Your task to perform on an android device: delete location history Image 0: 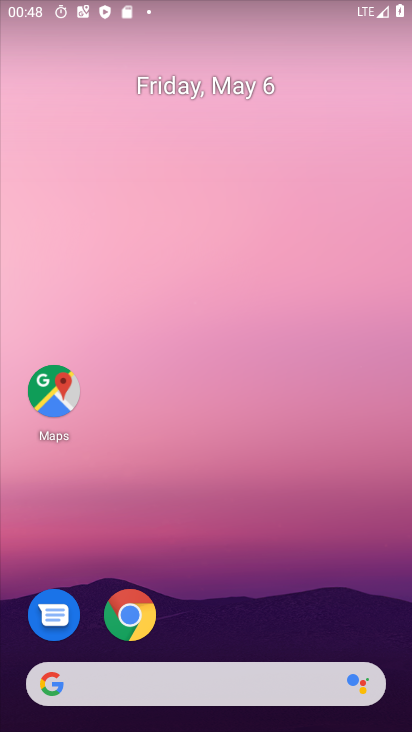
Step 0: drag from (240, 575) to (266, 14)
Your task to perform on an android device: delete location history Image 1: 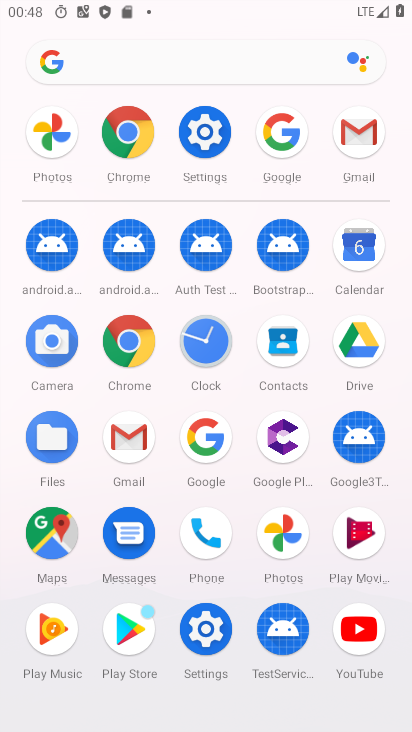
Step 1: click (206, 129)
Your task to perform on an android device: delete location history Image 2: 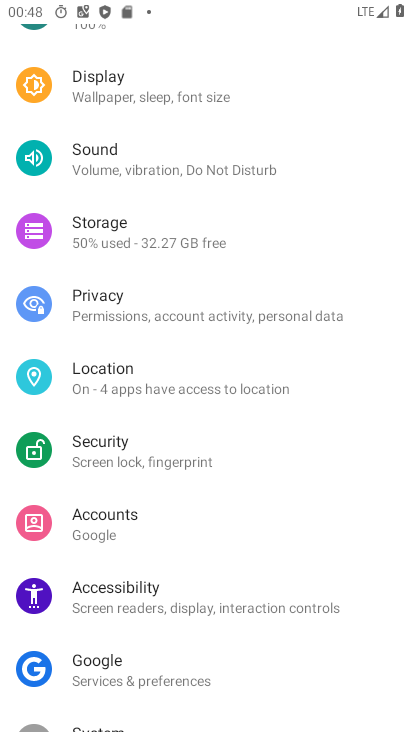
Step 2: click (139, 383)
Your task to perform on an android device: delete location history Image 3: 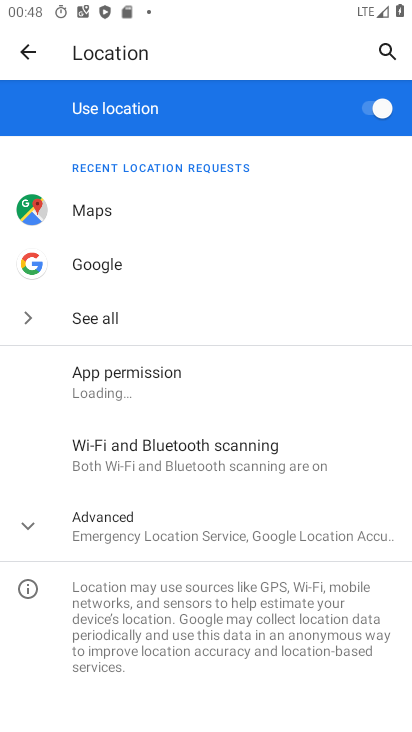
Step 3: drag from (202, 552) to (205, 233)
Your task to perform on an android device: delete location history Image 4: 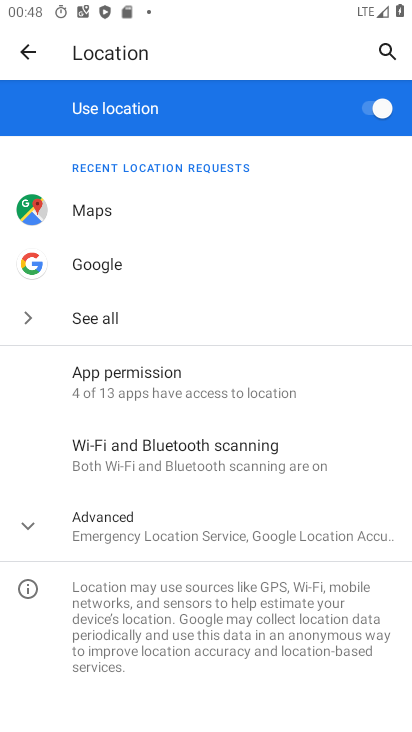
Step 4: click (115, 526)
Your task to perform on an android device: delete location history Image 5: 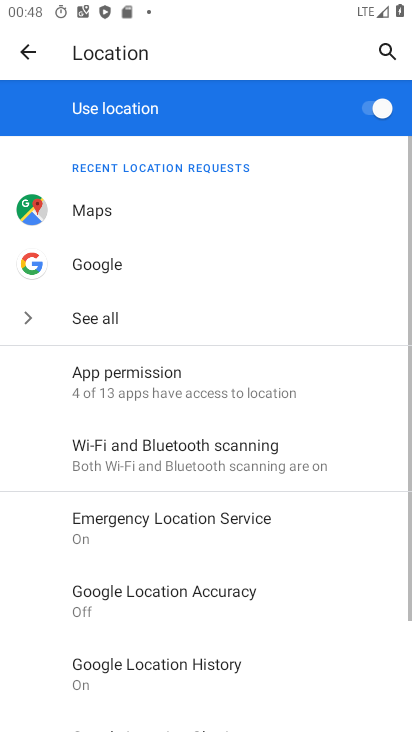
Step 5: drag from (194, 545) to (227, 237)
Your task to perform on an android device: delete location history Image 6: 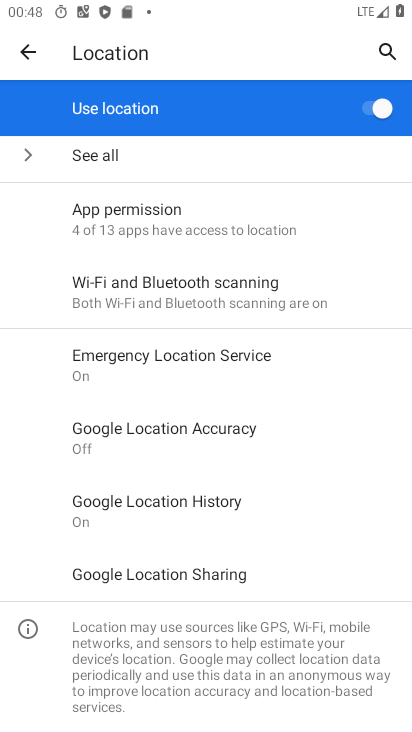
Step 6: click (144, 498)
Your task to perform on an android device: delete location history Image 7: 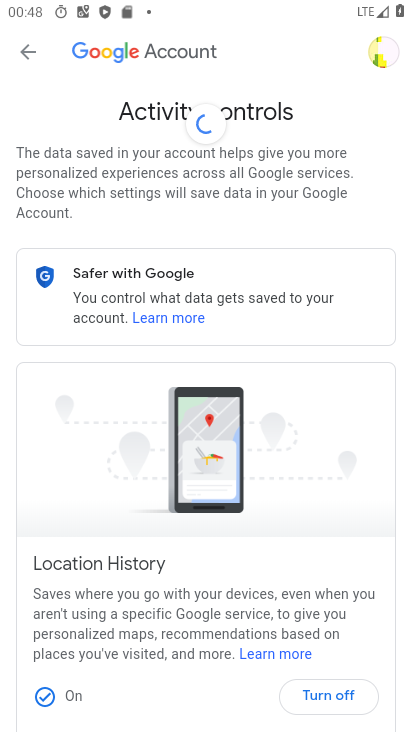
Step 7: drag from (145, 599) to (235, 17)
Your task to perform on an android device: delete location history Image 8: 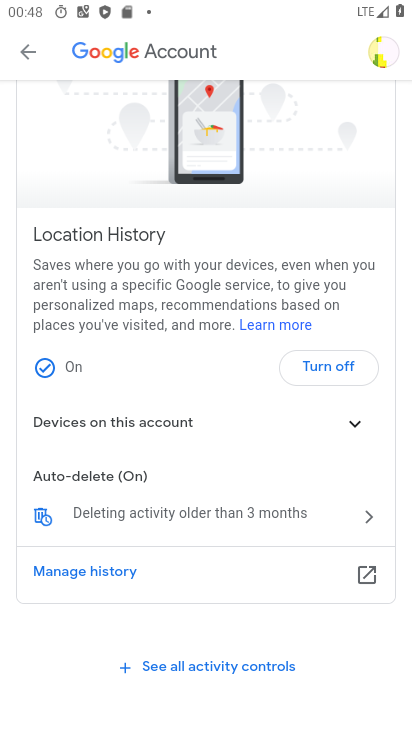
Step 8: click (36, 515)
Your task to perform on an android device: delete location history Image 9: 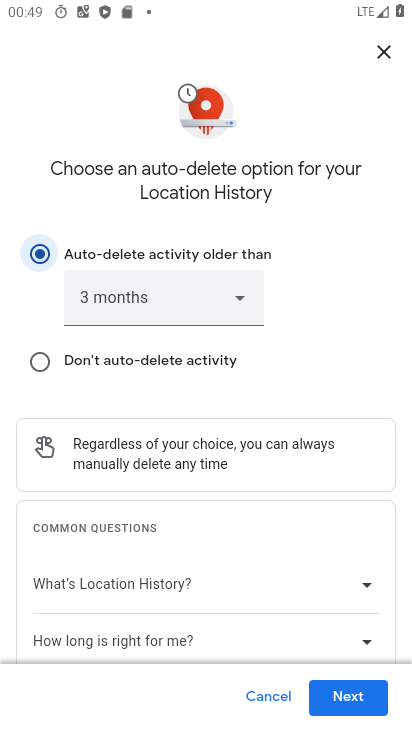
Step 9: click (342, 711)
Your task to perform on an android device: delete location history Image 10: 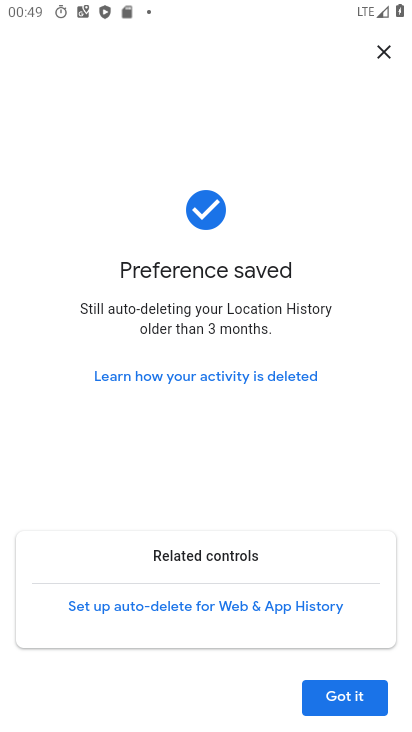
Step 10: click (328, 700)
Your task to perform on an android device: delete location history Image 11: 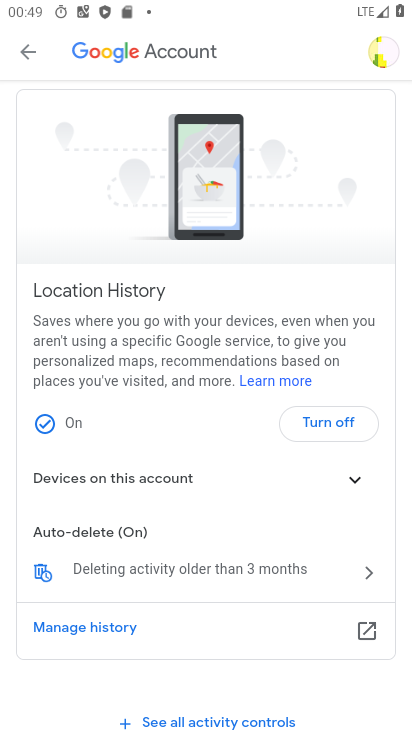
Step 11: task complete